Your task to perform on an android device: turn on the 24-hour format for clock Image 0: 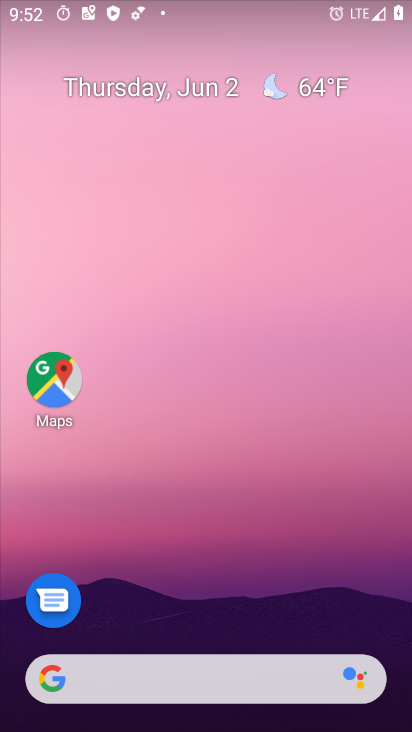
Step 0: drag from (179, 469) to (165, 31)
Your task to perform on an android device: turn on the 24-hour format for clock Image 1: 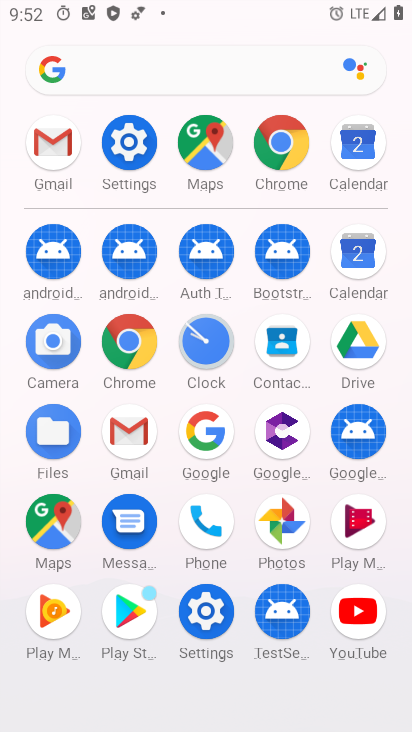
Step 1: click (206, 340)
Your task to perform on an android device: turn on the 24-hour format for clock Image 2: 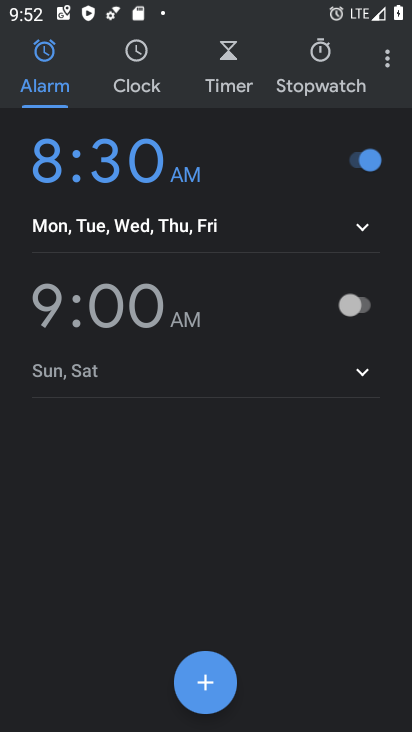
Step 2: click (383, 62)
Your task to perform on an android device: turn on the 24-hour format for clock Image 3: 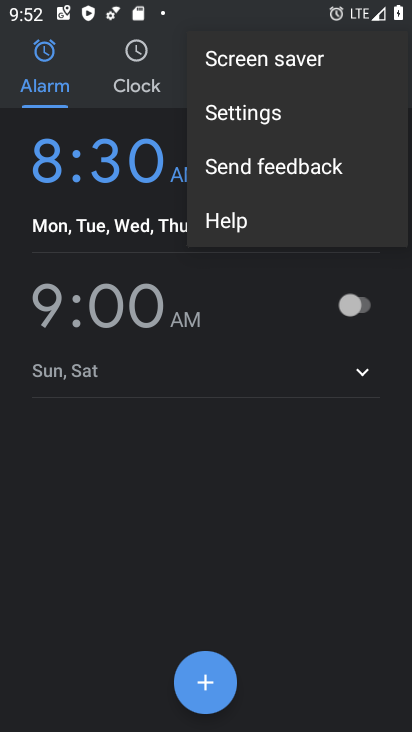
Step 3: click (301, 108)
Your task to perform on an android device: turn on the 24-hour format for clock Image 4: 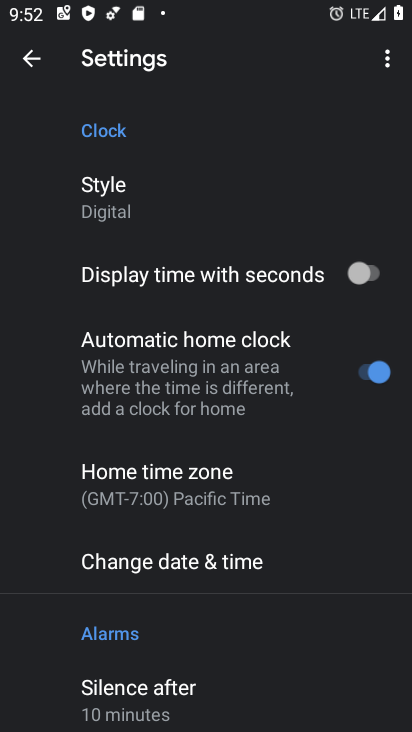
Step 4: click (188, 563)
Your task to perform on an android device: turn on the 24-hour format for clock Image 5: 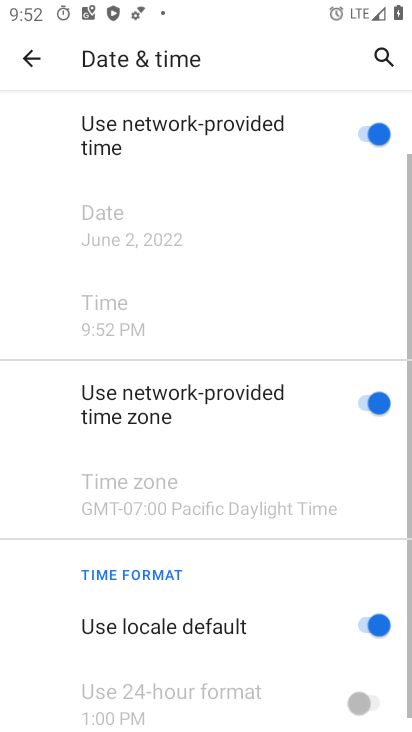
Step 5: drag from (328, 614) to (361, 244)
Your task to perform on an android device: turn on the 24-hour format for clock Image 6: 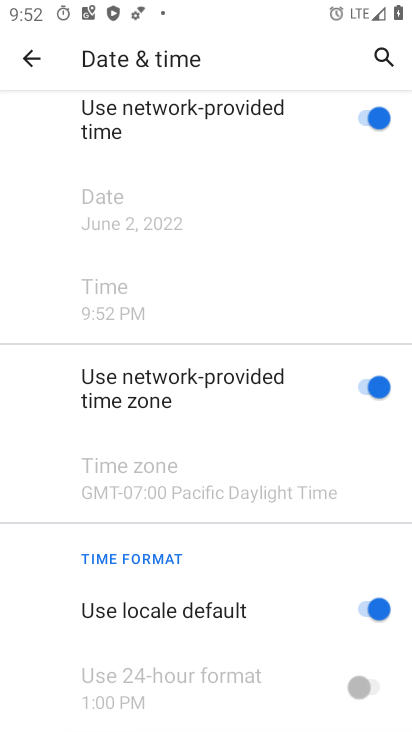
Step 6: click (368, 605)
Your task to perform on an android device: turn on the 24-hour format for clock Image 7: 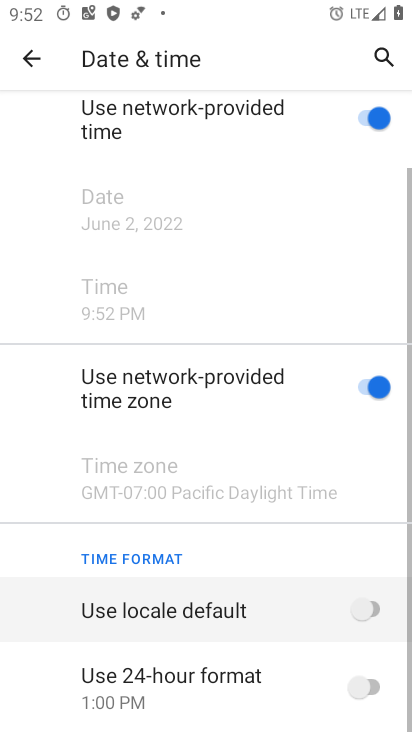
Step 7: click (353, 674)
Your task to perform on an android device: turn on the 24-hour format for clock Image 8: 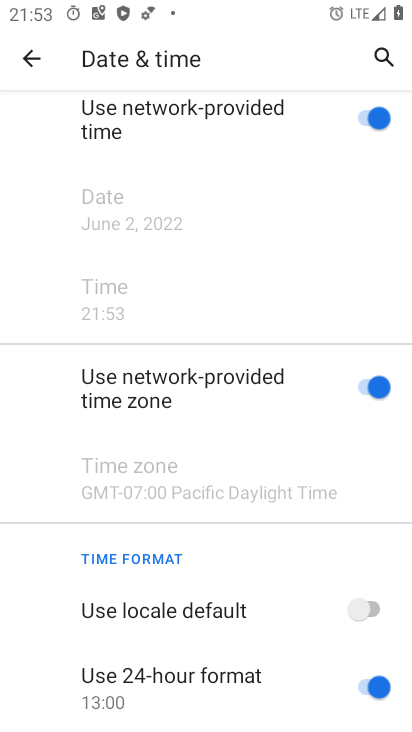
Step 8: task complete